Your task to perform on an android device: toggle wifi Image 0: 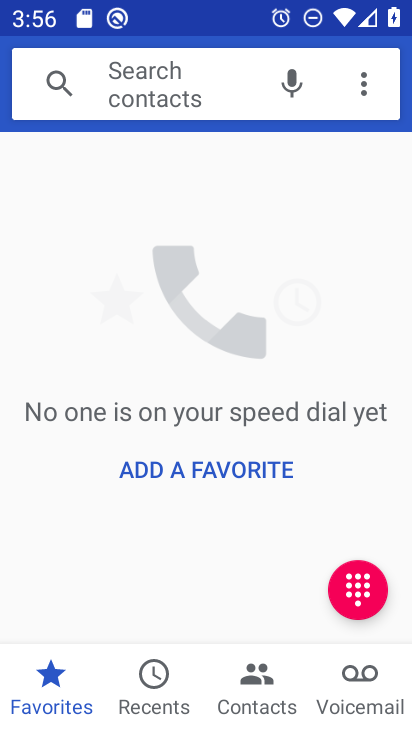
Step 0: press back button
Your task to perform on an android device: toggle wifi Image 1: 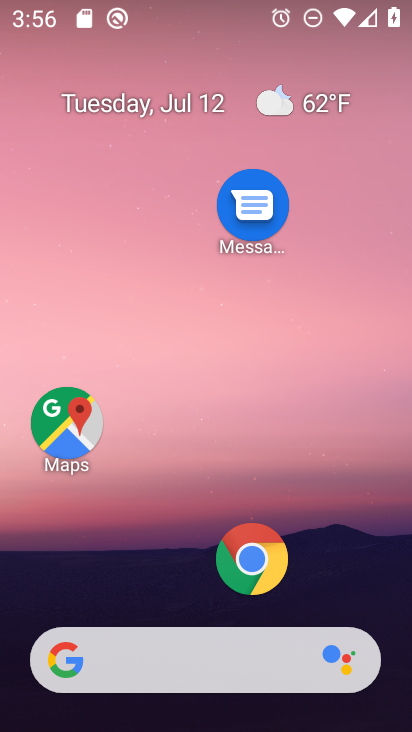
Step 1: drag from (64, 6) to (95, 612)
Your task to perform on an android device: toggle wifi Image 2: 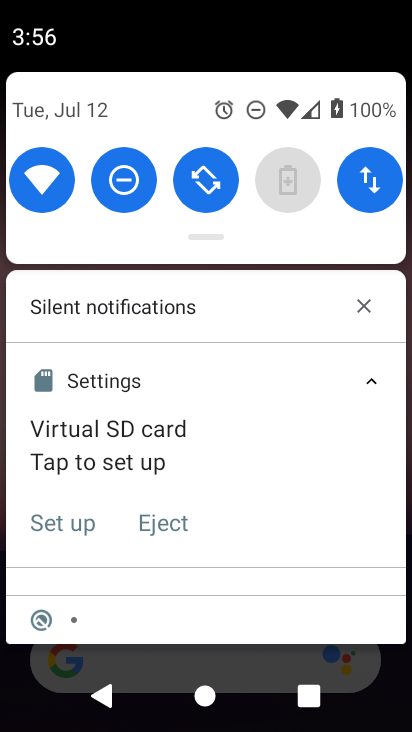
Step 2: click (42, 188)
Your task to perform on an android device: toggle wifi Image 3: 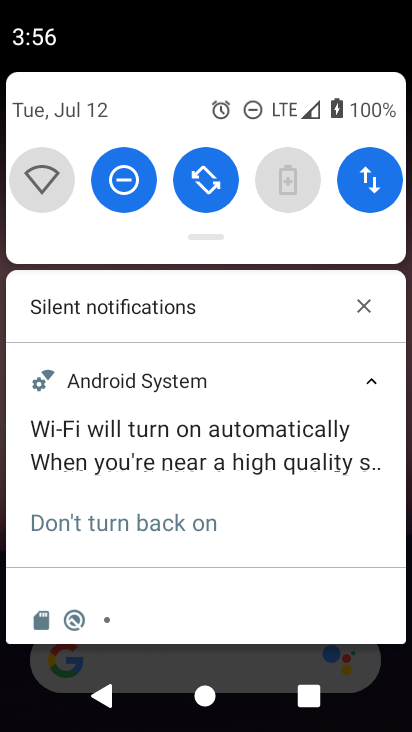
Step 3: task complete